Your task to perform on an android device: Find coffee shops on Maps Image 0: 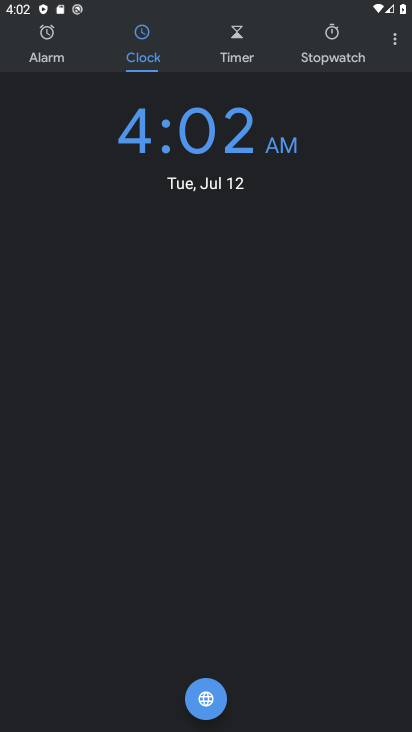
Step 0: press home button
Your task to perform on an android device: Find coffee shops on Maps Image 1: 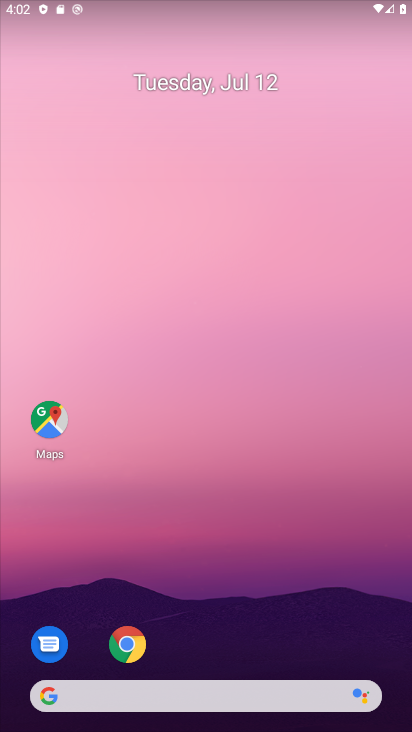
Step 1: click (50, 419)
Your task to perform on an android device: Find coffee shops on Maps Image 2: 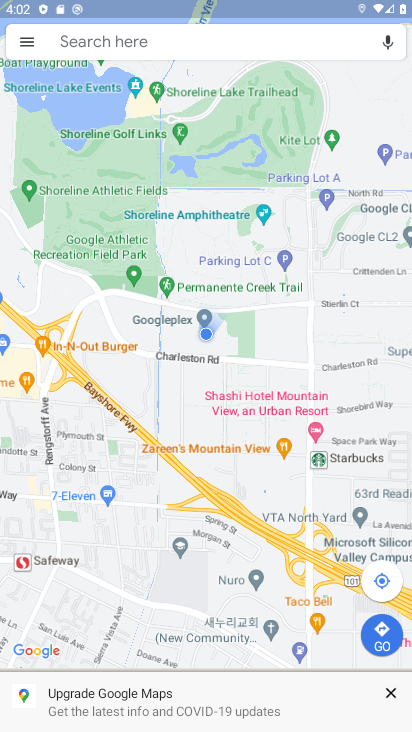
Step 2: click (137, 49)
Your task to perform on an android device: Find coffee shops on Maps Image 3: 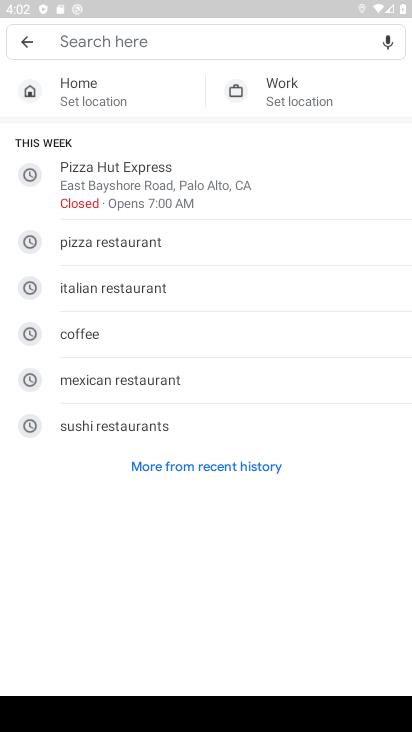
Step 3: click (130, 333)
Your task to perform on an android device: Find coffee shops on Maps Image 4: 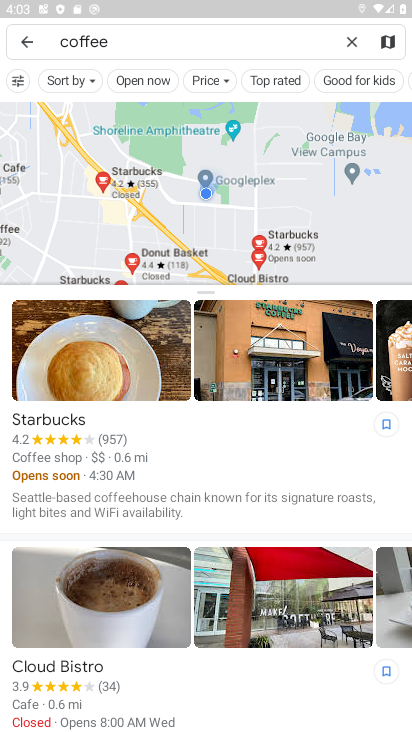
Step 4: task complete